Your task to perform on an android device: toggle improve location accuracy Image 0: 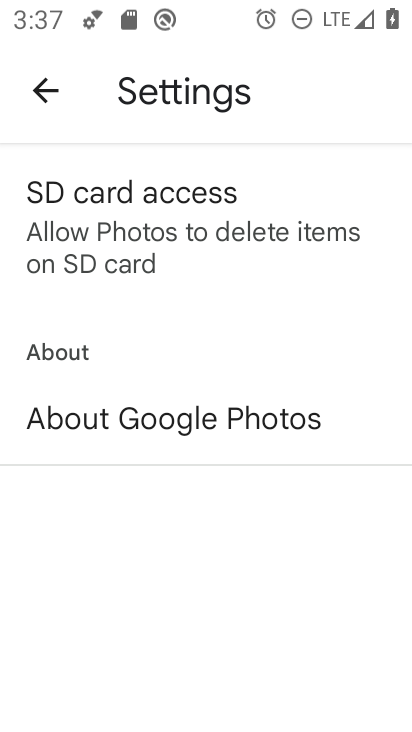
Step 0: press home button
Your task to perform on an android device: toggle improve location accuracy Image 1: 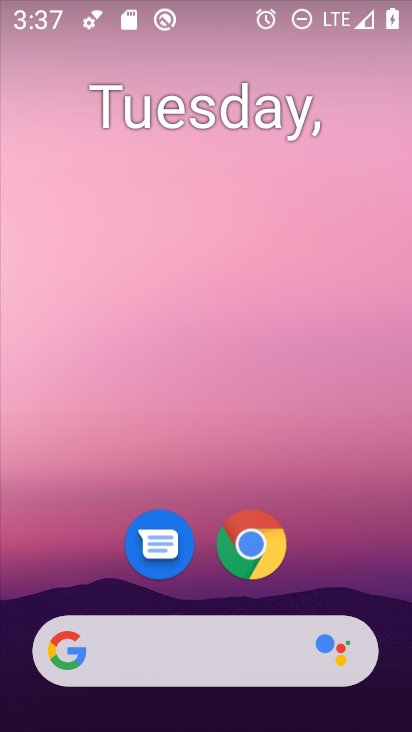
Step 1: drag from (352, 534) to (365, 113)
Your task to perform on an android device: toggle improve location accuracy Image 2: 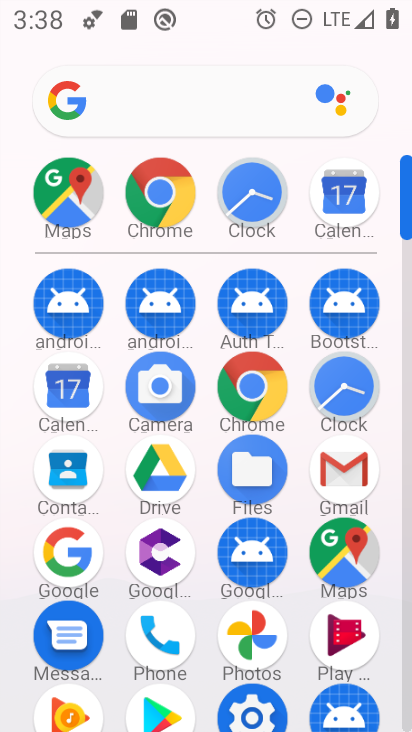
Step 2: drag from (200, 583) to (200, 382)
Your task to perform on an android device: toggle improve location accuracy Image 3: 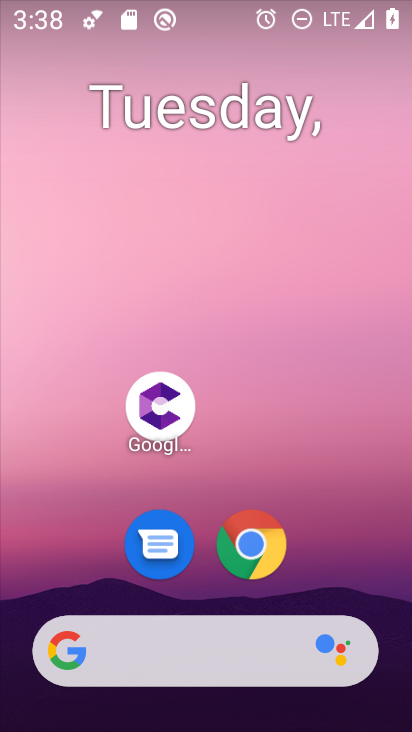
Step 3: drag from (350, 412) to (351, 86)
Your task to perform on an android device: toggle improve location accuracy Image 4: 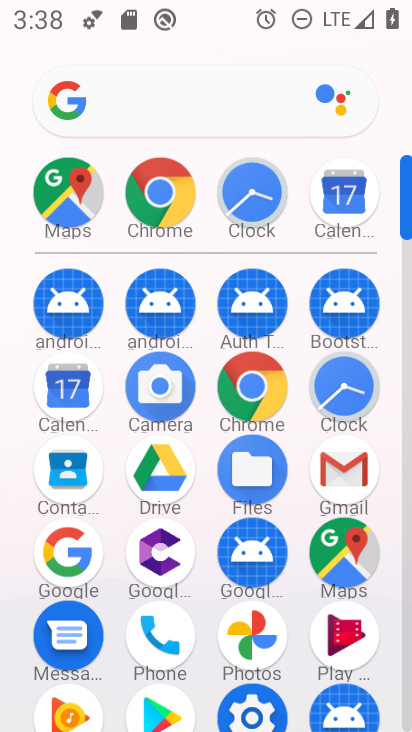
Step 4: drag from (200, 585) to (217, 287)
Your task to perform on an android device: toggle improve location accuracy Image 5: 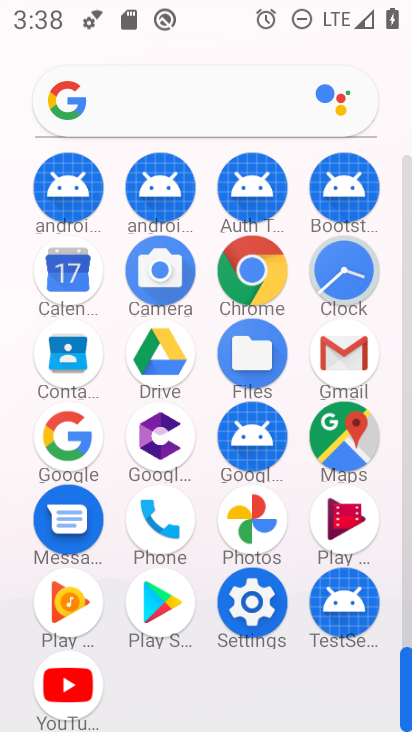
Step 5: click (260, 620)
Your task to perform on an android device: toggle improve location accuracy Image 6: 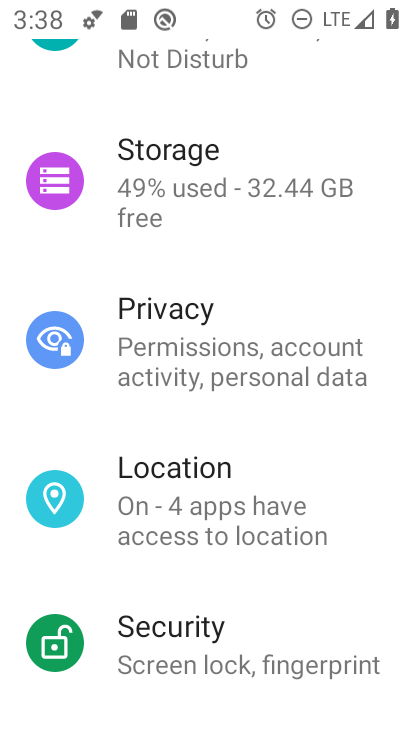
Step 6: drag from (349, 615) to (370, 477)
Your task to perform on an android device: toggle improve location accuracy Image 7: 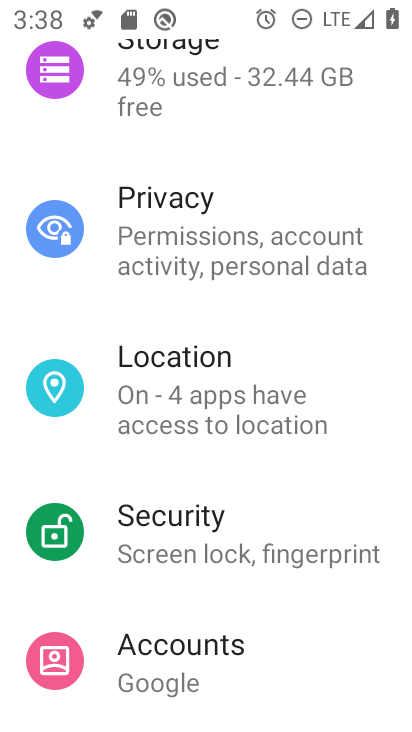
Step 7: drag from (354, 632) to (374, 523)
Your task to perform on an android device: toggle improve location accuracy Image 8: 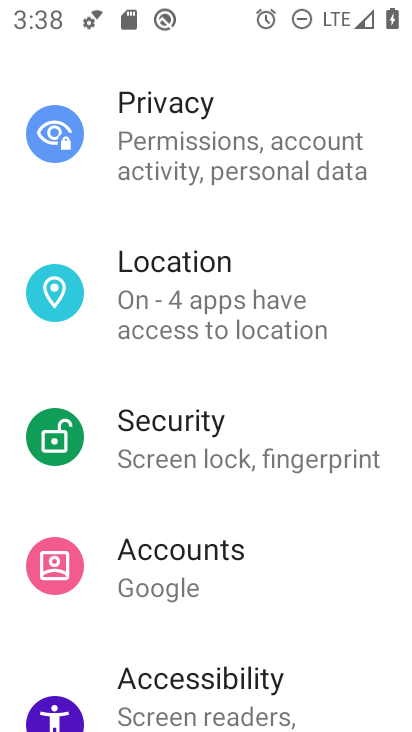
Step 8: drag from (318, 599) to (340, 390)
Your task to perform on an android device: toggle improve location accuracy Image 9: 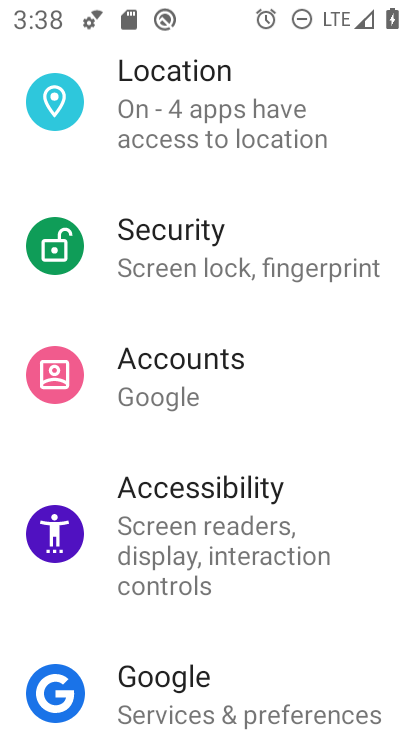
Step 9: drag from (366, 618) to (362, 435)
Your task to perform on an android device: toggle improve location accuracy Image 10: 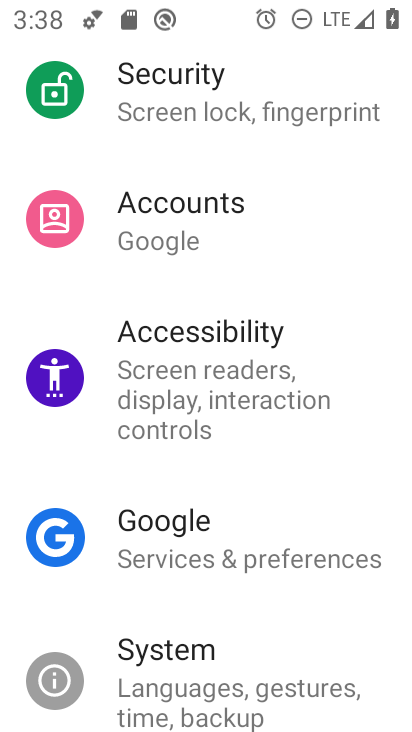
Step 10: drag from (314, 618) to (306, 435)
Your task to perform on an android device: toggle improve location accuracy Image 11: 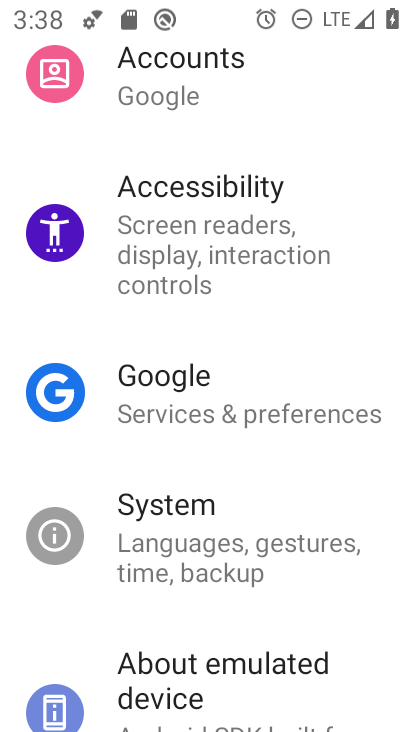
Step 11: drag from (285, 614) to (303, 464)
Your task to perform on an android device: toggle improve location accuracy Image 12: 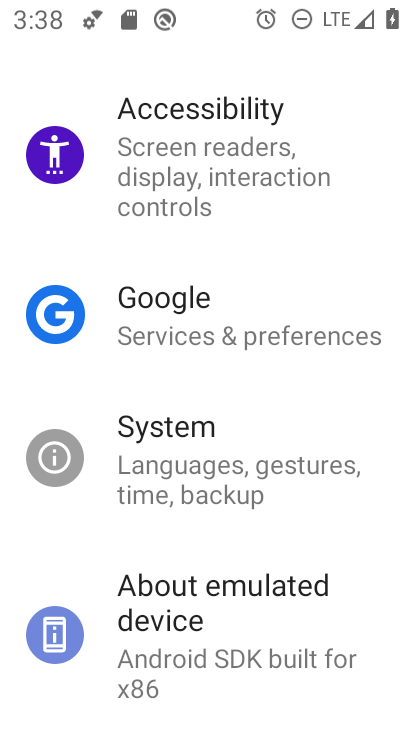
Step 12: drag from (344, 251) to (314, 433)
Your task to perform on an android device: toggle improve location accuracy Image 13: 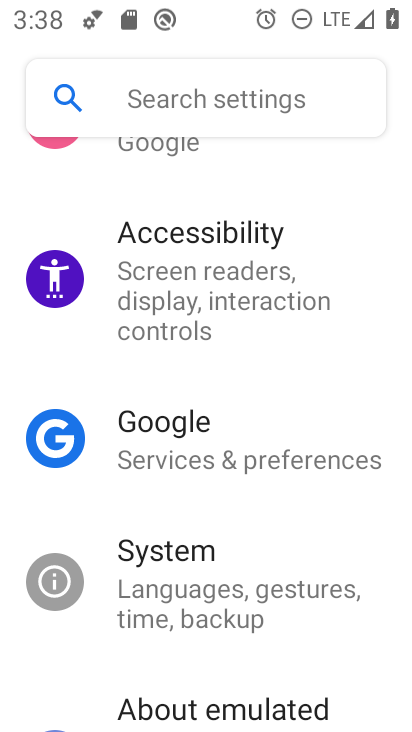
Step 13: drag from (339, 266) to (341, 463)
Your task to perform on an android device: toggle improve location accuracy Image 14: 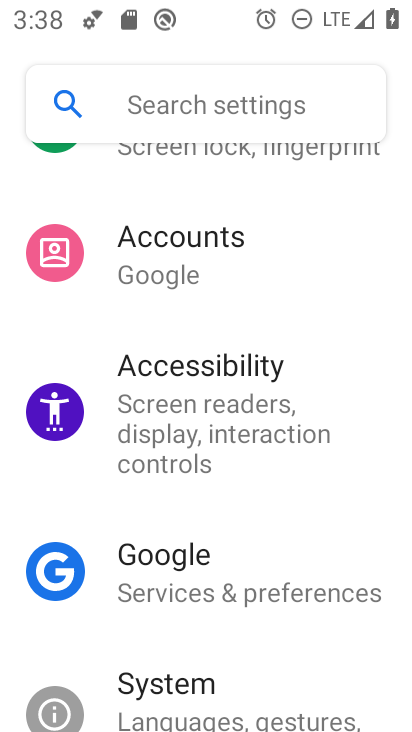
Step 14: drag from (345, 240) to (337, 478)
Your task to perform on an android device: toggle improve location accuracy Image 15: 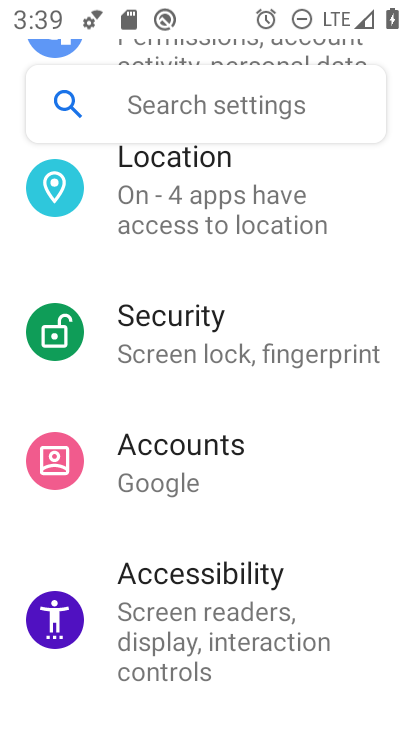
Step 15: drag from (340, 255) to (339, 436)
Your task to perform on an android device: toggle improve location accuracy Image 16: 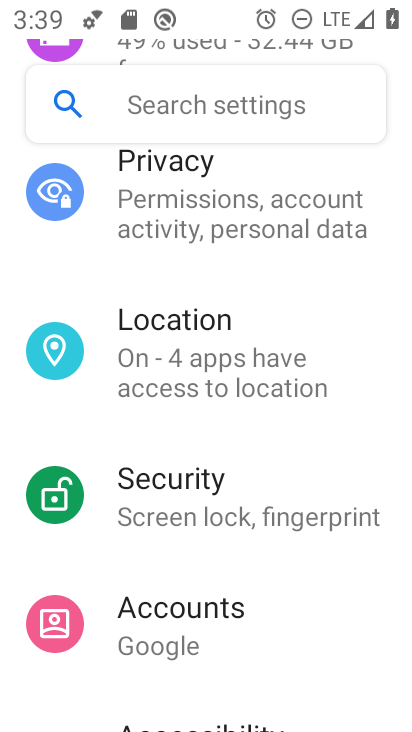
Step 16: click (307, 392)
Your task to perform on an android device: toggle improve location accuracy Image 17: 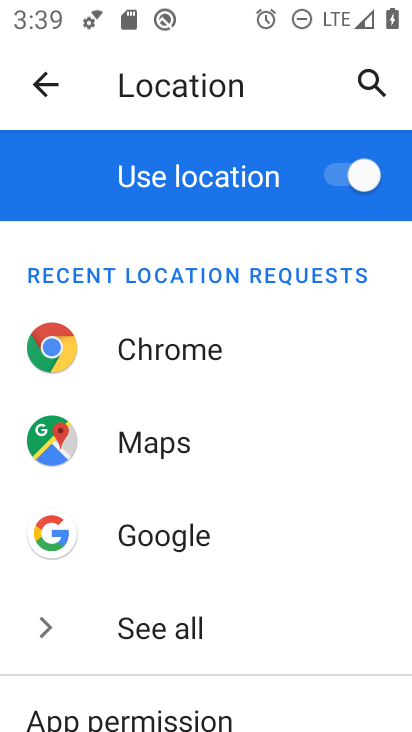
Step 17: drag from (289, 558) to (316, 376)
Your task to perform on an android device: toggle improve location accuracy Image 18: 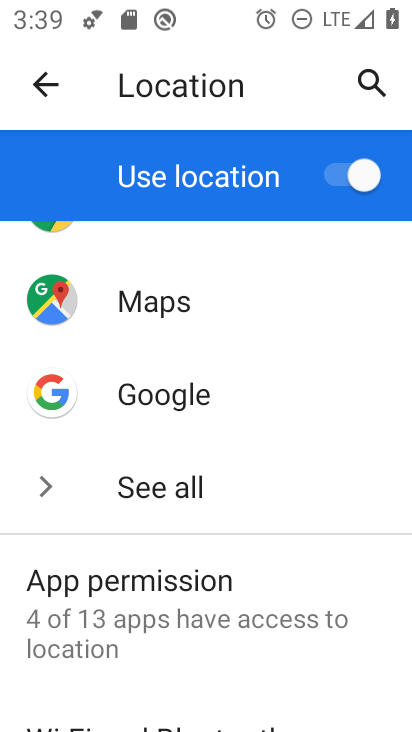
Step 18: drag from (306, 610) to (309, 369)
Your task to perform on an android device: toggle improve location accuracy Image 19: 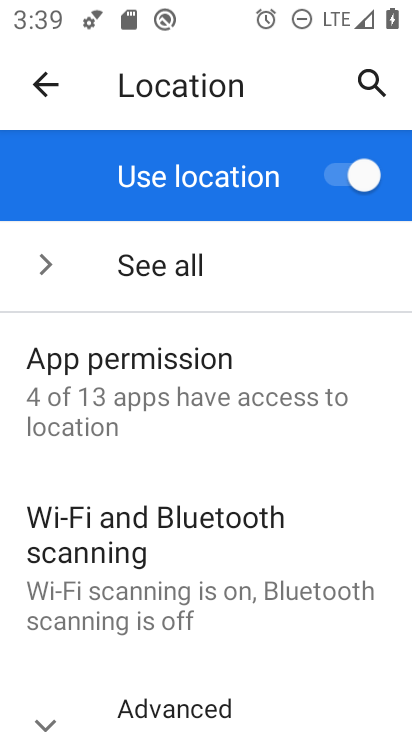
Step 19: drag from (325, 650) to (358, 471)
Your task to perform on an android device: toggle improve location accuracy Image 20: 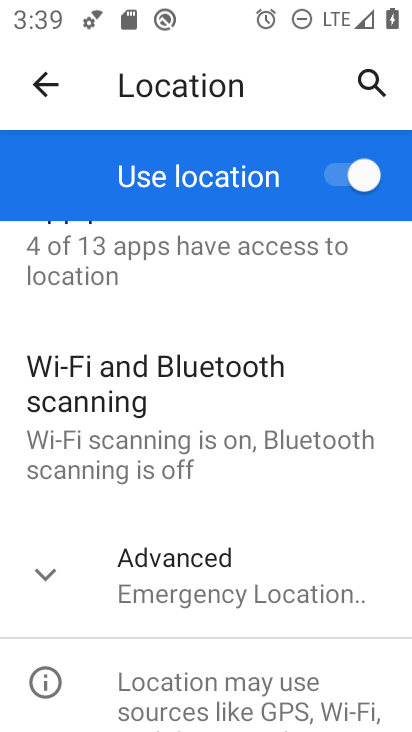
Step 20: click (310, 576)
Your task to perform on an android device: toggle improve location accuracy Image 21: 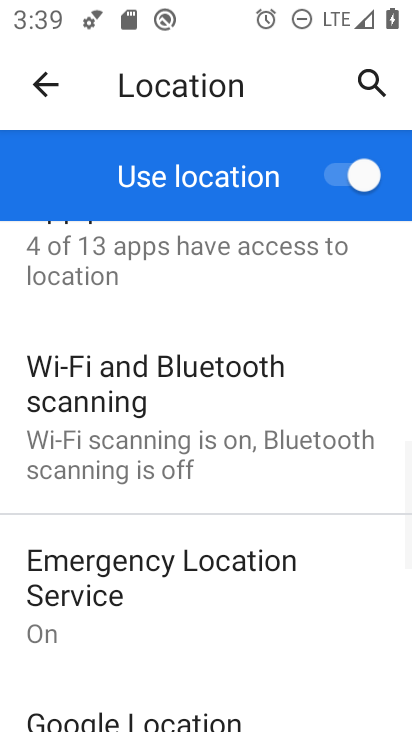
Step 21: drag from (311, 607) to (347, 378)
Your task to perform on an android device: toggle improve location accuracy Image 22: 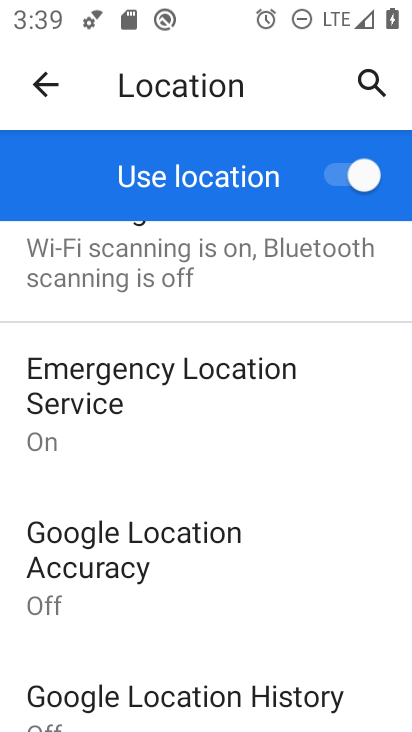
Step 22: drag from (329, 584) to (316, 413)
Your task to perform on an android device: toggle improve location accuracy Image 23: 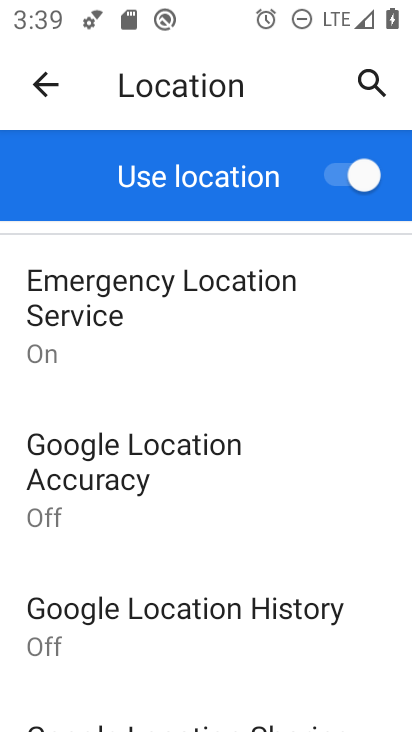
Step 23: click (175, 470)
Your task to perform on an android device: toggle improve location accuracy Image 24: 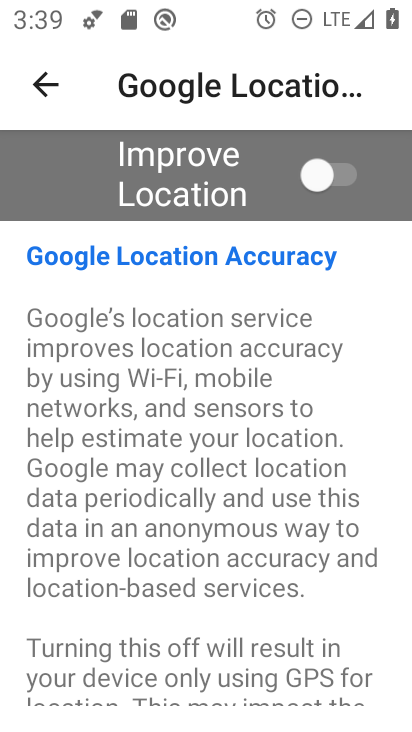
Step 24: click (302, 184)
Your task to perform on an android device: toggle improve location accuracy Image 25: 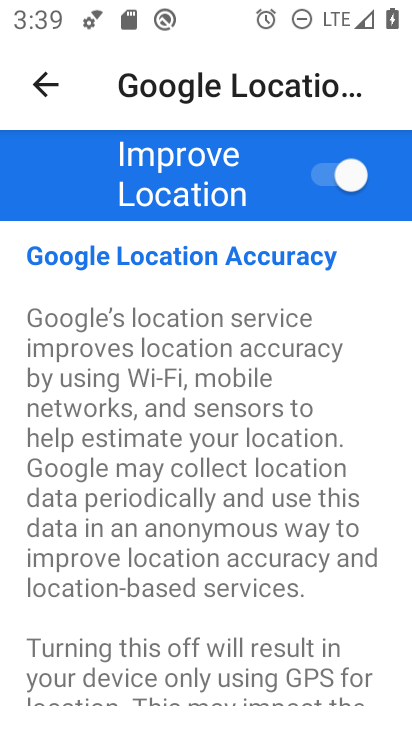
Step 25: task complete